Your task to perform on an android device: open the mobile data screen to see how much data has been used Image 0: 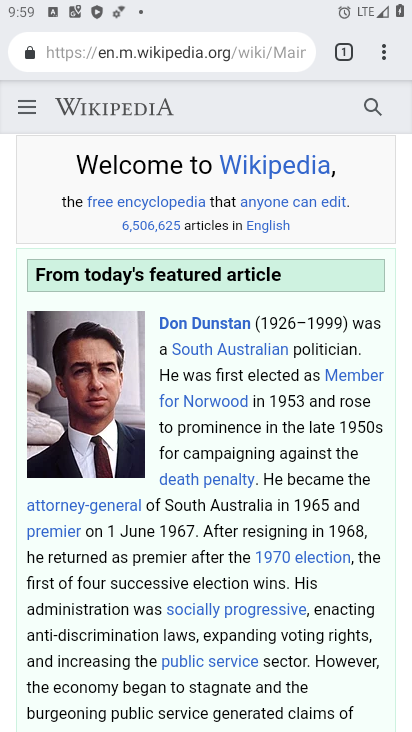
Step 0: press home button
Your task to perform on an android device: open the mobile data screen to see how much data has been used Image 1: 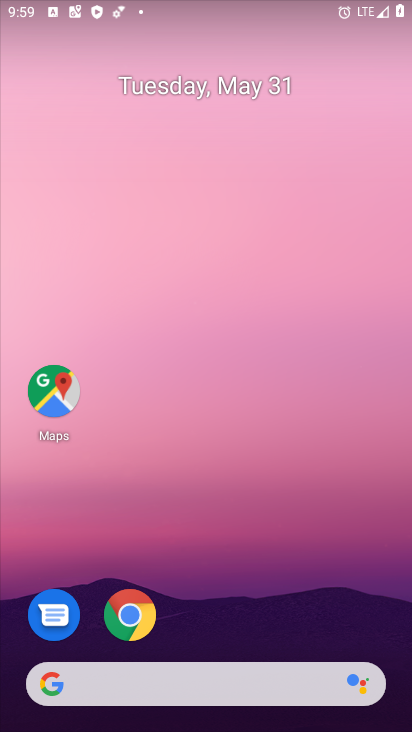
Step 1: drag from (283, 620) to (235, 162)
Your task to perform on an android device: open the mobile data screen to see how much data has been used Image 2: 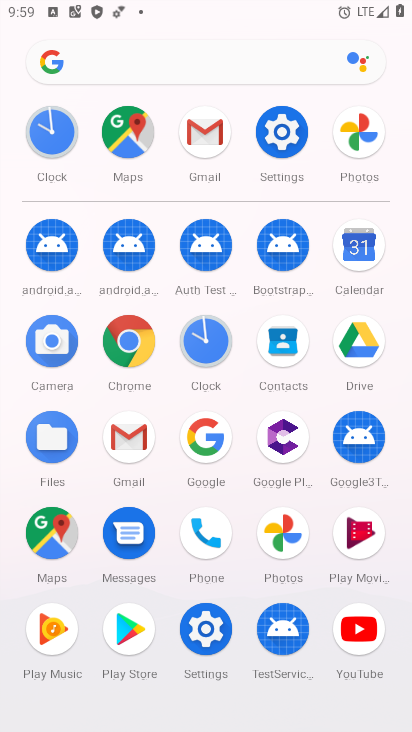
Step 2: click (206, 624)
Your task to perform on an android device: open the mobile data screen to see how much data has been used Image 3: 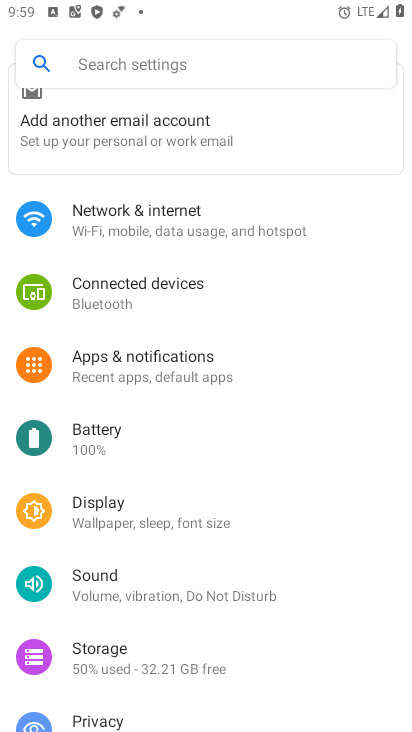
Step 3: click (123, 213)
Your task to perform on an android device: open the mobile data screen to see how much data has been used Image 4: 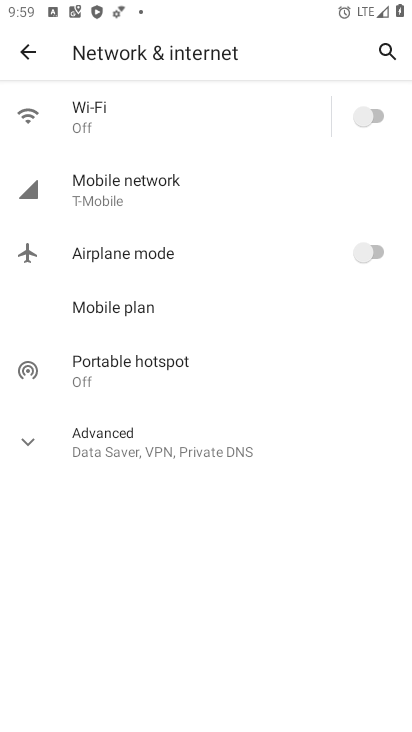
Step 4: click (111, 183)
Your task to perform on an android device: open the mobile data screen to see how much data has been used Image 5: 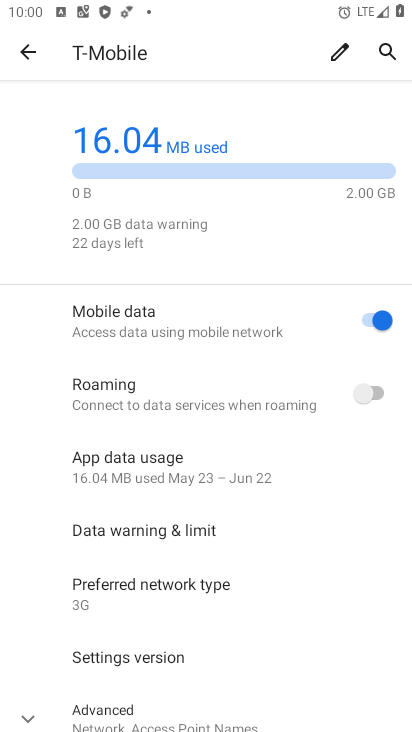
Step 5: task complete